Your task to perform on an android device: move a message to another label in the gmail app Image 0: 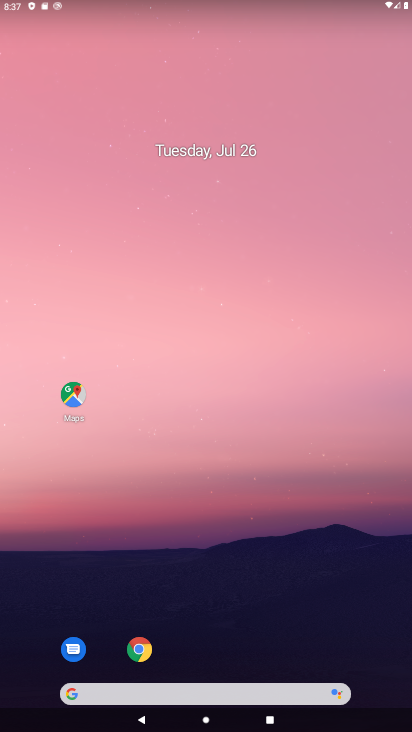
Step 0: drag from (219, 594) to (263, 155)
Your task to perform on an android device: move a message to another label in the gmail app Image 1: 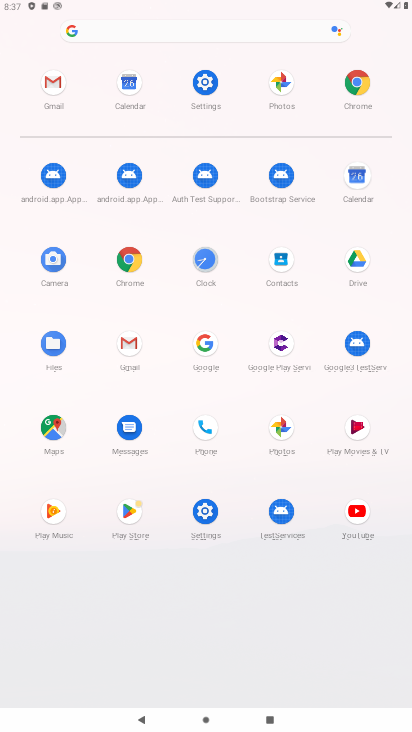
Step 1: click (118, 321)
Your task to perform on an android device: move a message to another label in the gmail app Image 2: 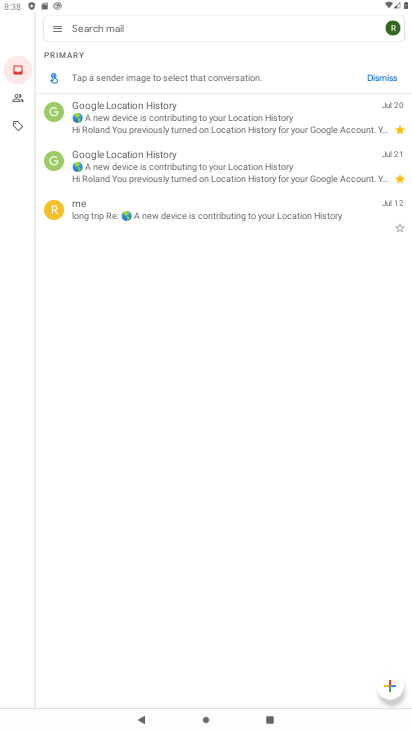
Step 2: drag from (187, 329) to (304, 220)
Your task to perform on an android device: move a message to another label in the gmail app Image 3: 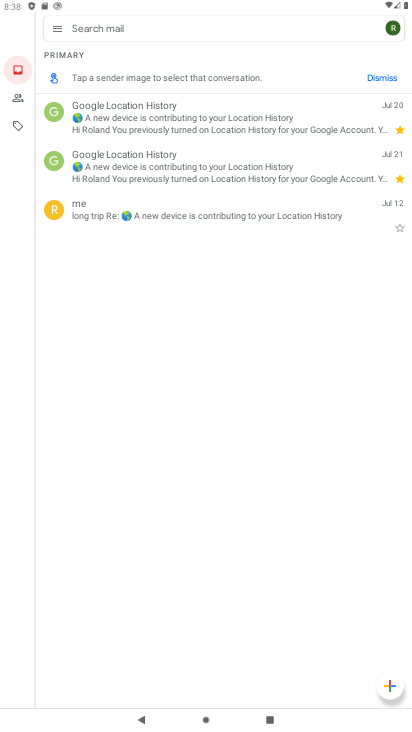
Step 3: click (266, 233)
Your task to perform on an android device: move a message to another label in the gmail app Image 4: 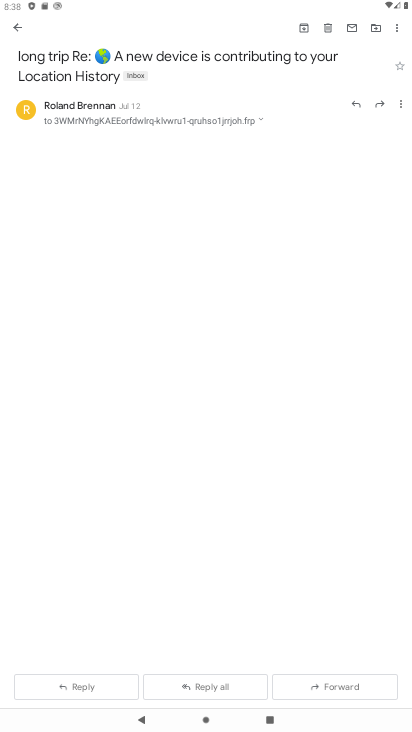
Step 4: click (396, 69)
Your task to perform on an android device: move a message to another label in the gmail app Image 5: 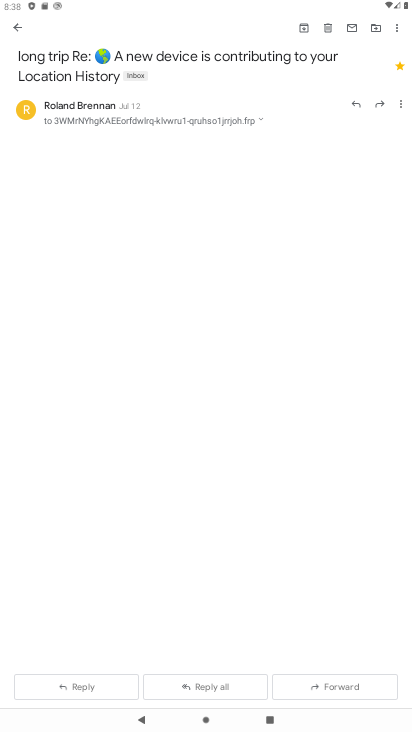
Step 5: task complete